Your task to perform on an android device: Go to wifi settings Image 0: 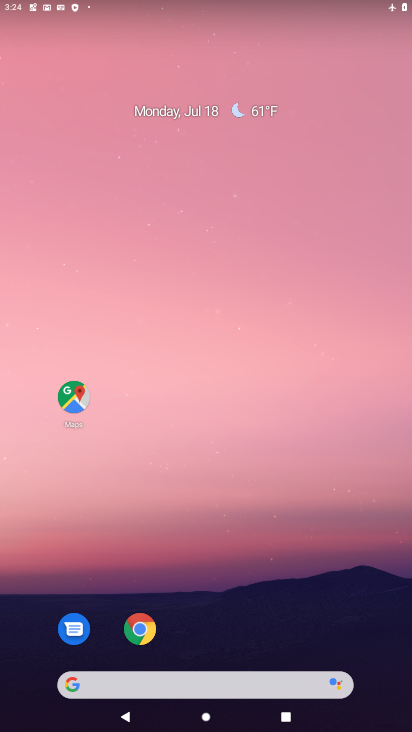
Step 0: click (209, 350)
Your task to perform on an android device: Go to wifi settings Image 1: 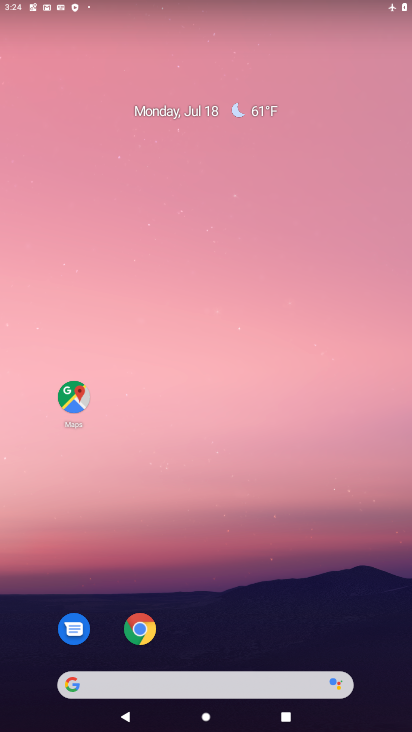
Step 1: drag from (239, 652) to (278, 195)
Your task to perform on an android device: Go to wifi settings Image 2: 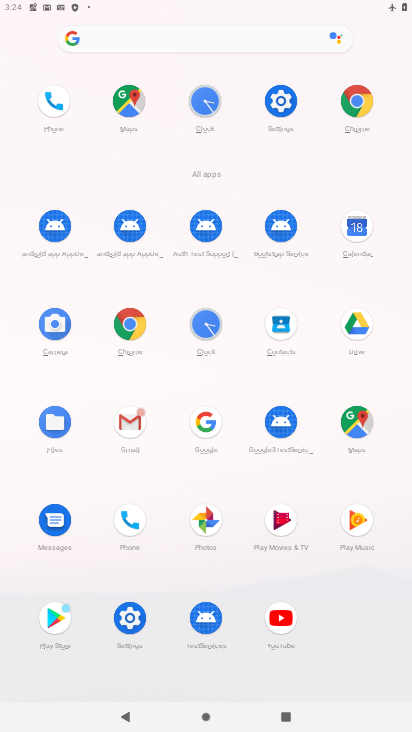
Step 2: click (281, 108)
Your task to perform on an android device: Go to wifi settings Image 3: 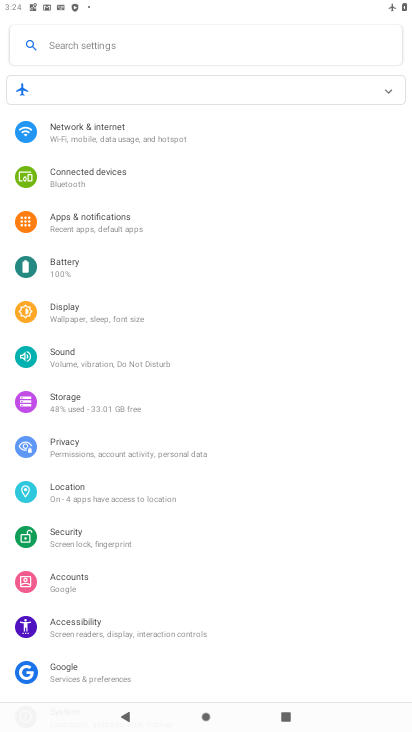
Step 3: click (121, 133)
Your task to perform on an android device: Go to wifi settings Image 4: 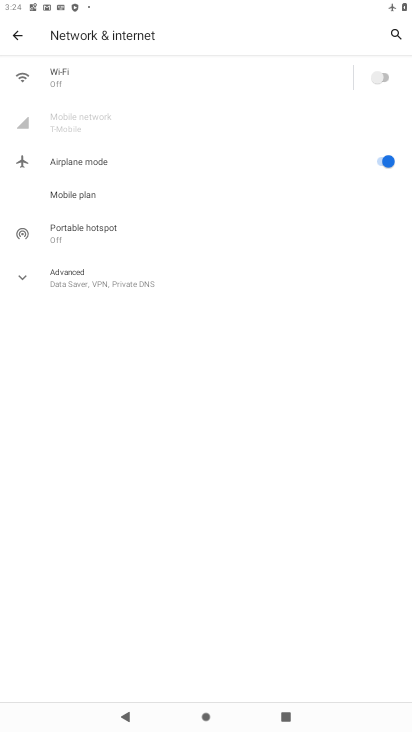
Step 4: click (380, 73)
Your task to perform on an android device: Go to wifi settings Image 5: 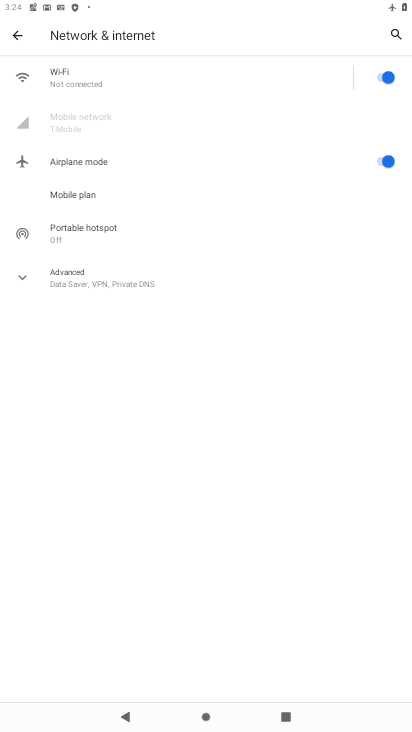
Step 5: click (380, 158)
Your task to perform on an android device: Go to wifi settings Image 6: 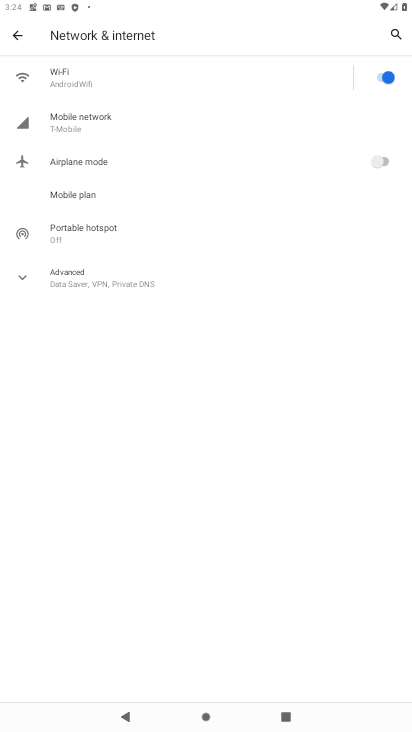
Step 6: click (117, 70)
Your task to perform on an android device: Go to wifi settings Image 7: 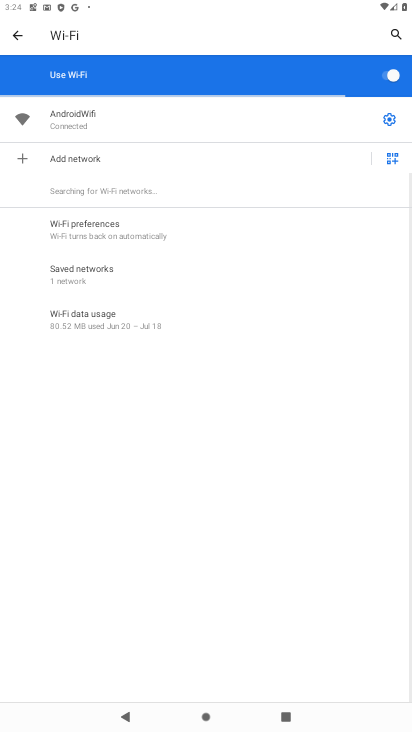
Step 7: click (394, 126)
Your task to perform on an android device: Go to wifi settings Image 8: 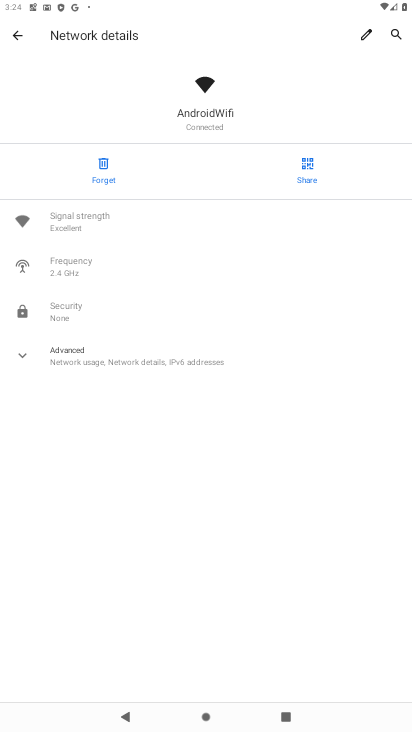
Step 8: click (65, 355)
Your task to perform on an android device: Go to wifi settings Image 9: 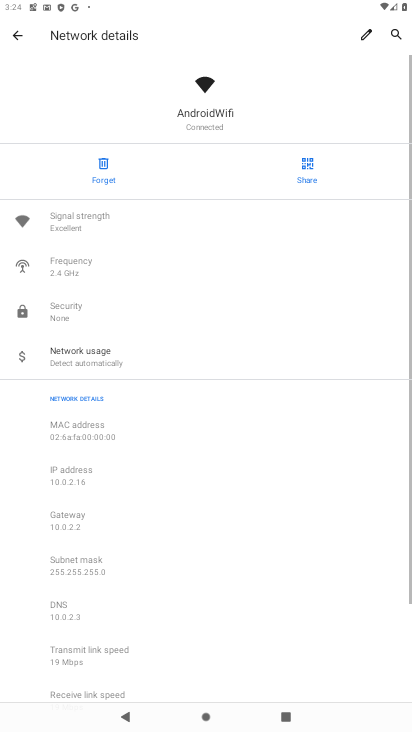
Step 9: task complete